Your task to perform on an android device: Go to eBay Image 0: 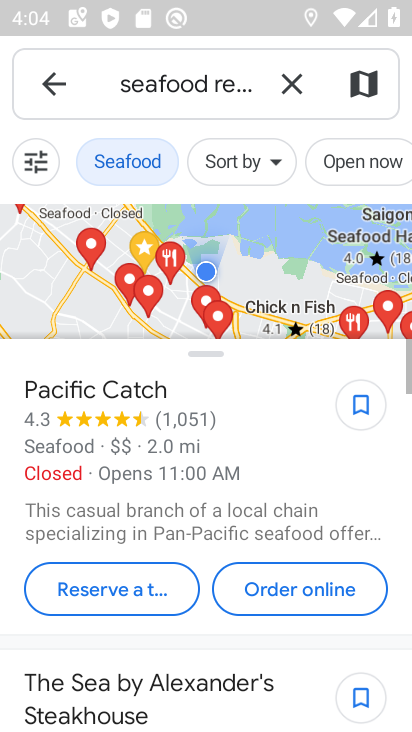
Step 0: press home button
Your task to perform on an android device: Go to eBay Image 1: 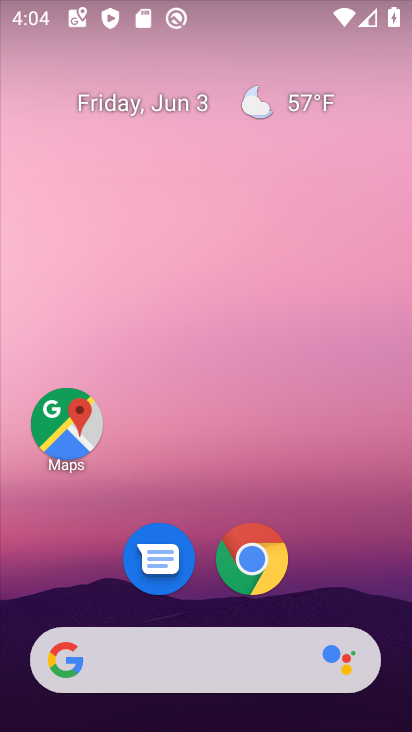
Step 1: drag from (315, 595) to (318, 252)
Your task to perform on an android device: Go to eBay Image 2: 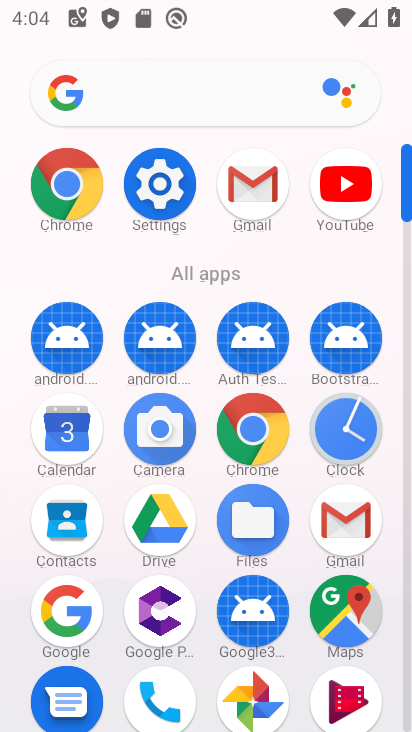
Step 2: click (247, 417)
Your task to perform on an android device: Go to eBay Image 3: 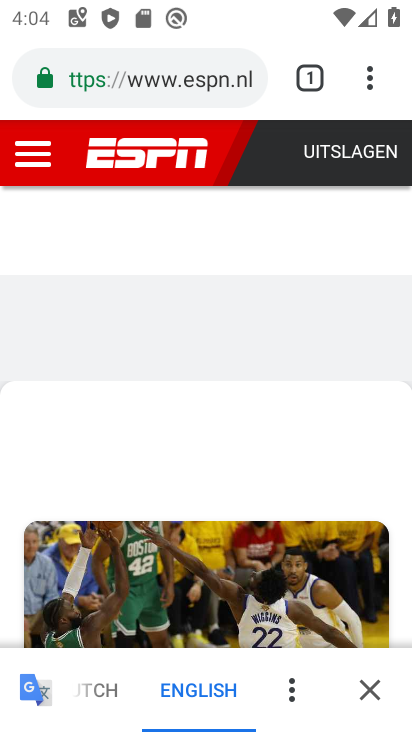
Step 3: click (200, 80)
Your task to perform on an android device: Go to eBay Image 4: 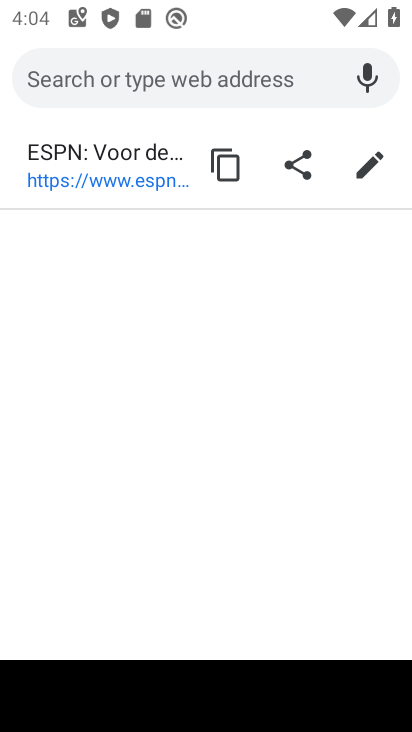
Step 4: type " eBay"
Your task to perform on an android device: Go to eBay Image 5: 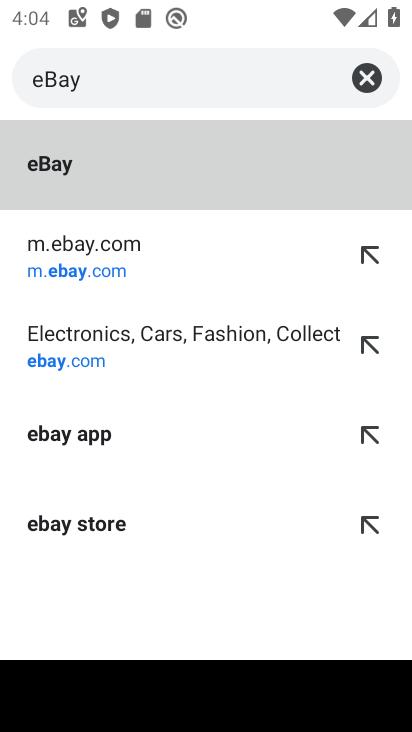
Step 5: click (67, 267)
Your task to perform on an android device: Go to eBay Image 6: 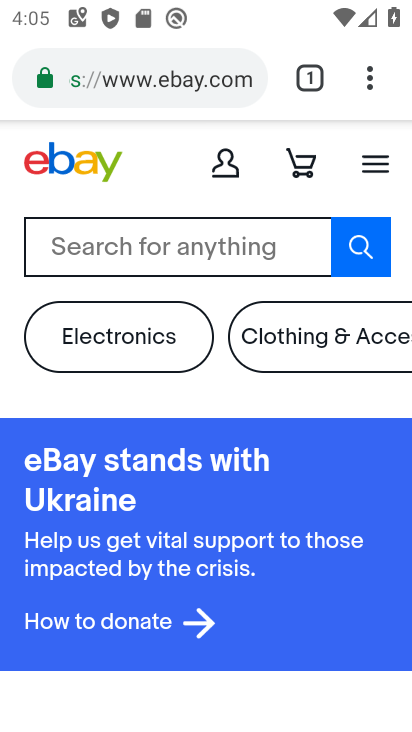
Step 6: task complete